Your task to perform on an android device: Open Youtube and go to the subscriptions tab Image 0: 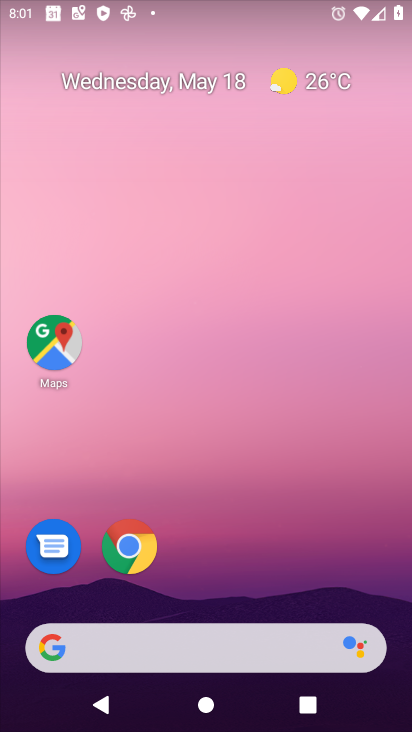
Step 0: drag from (383, 610) to (295, 50)
Your task to perform on an android device: Open Youtube and go to the subscriptions tab Image 1: 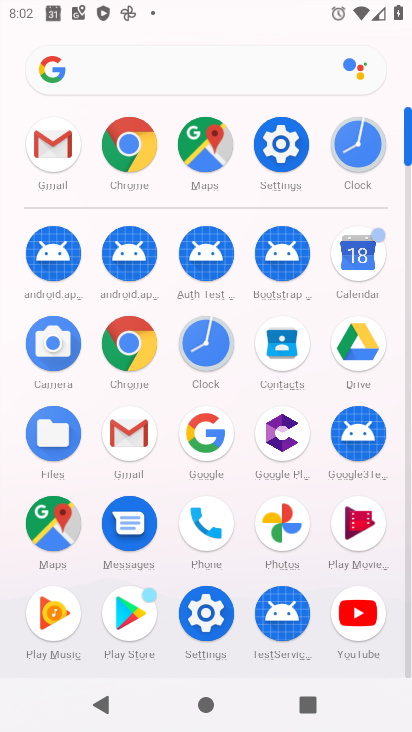
Step 1: click (361, 614)
Your task to perform on an android device: Open Youtube and go to the subscriptions tab Image 2: 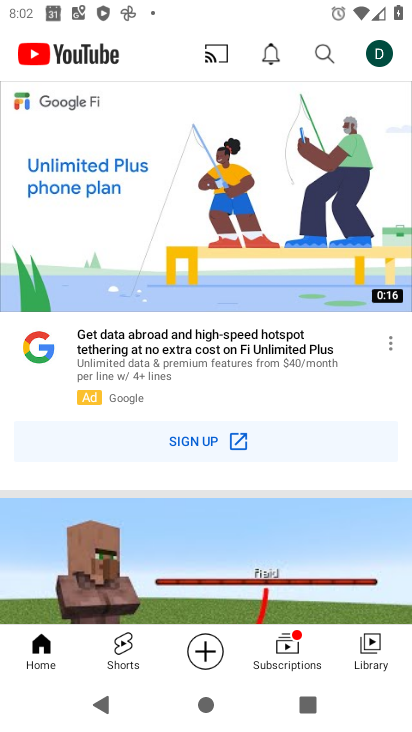
Step 2: click (291, 645)
Your task to perform on an android device: Open Youtube and go to the subscriptions tab Image 3: 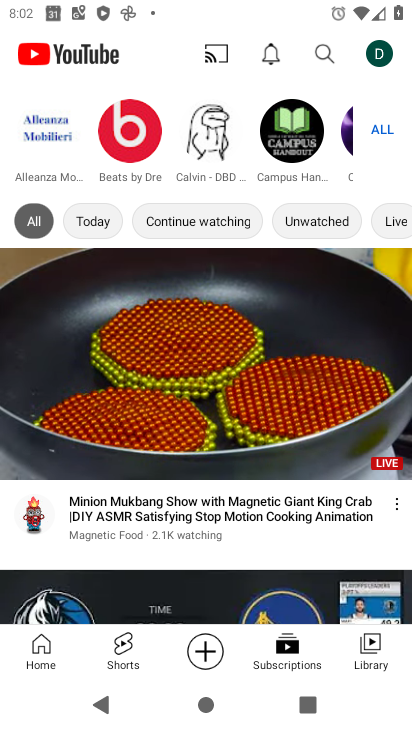
Step 3: task complete